Your task to perform on an android device: change alarm snooze length Image 0: 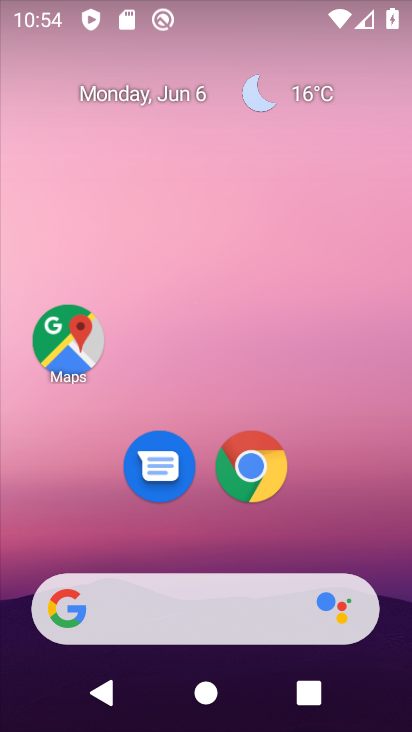
Step 0: drag from (372, 516) to (267, 2)
Your task to perform on an android device: change alarm snooze length Image 1: 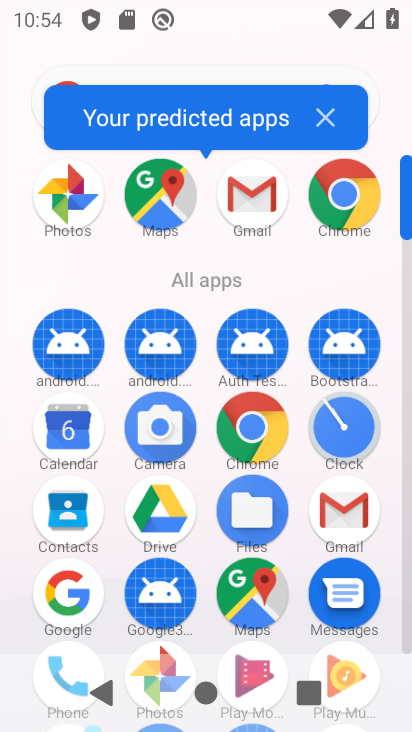
Step 1: click (322, 405)
Your task to perform on an android device: change alarm snooze length Image 2: 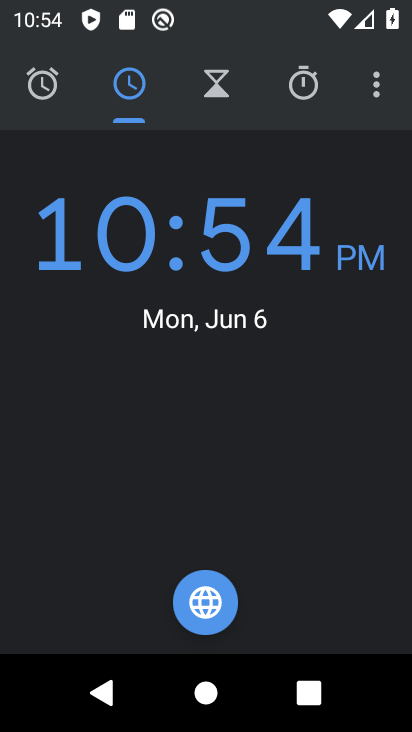
Step 2: click (58, 79)
Your task to perform on an android device: change alarm snooze length Image 3: 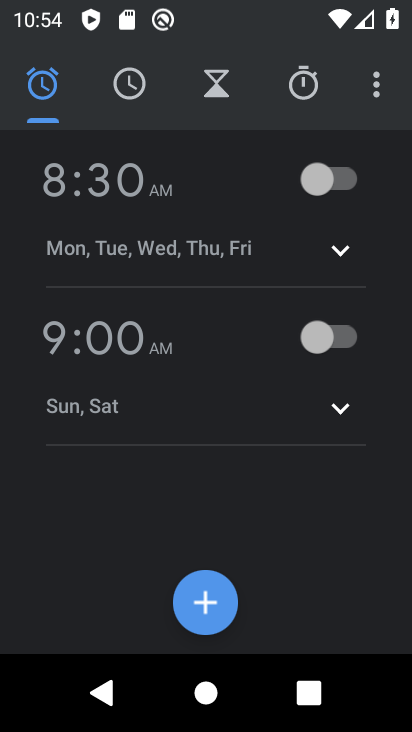
Step 3: task complete